Your task to perform on an android device: uninstall "Facebook" Image 0: 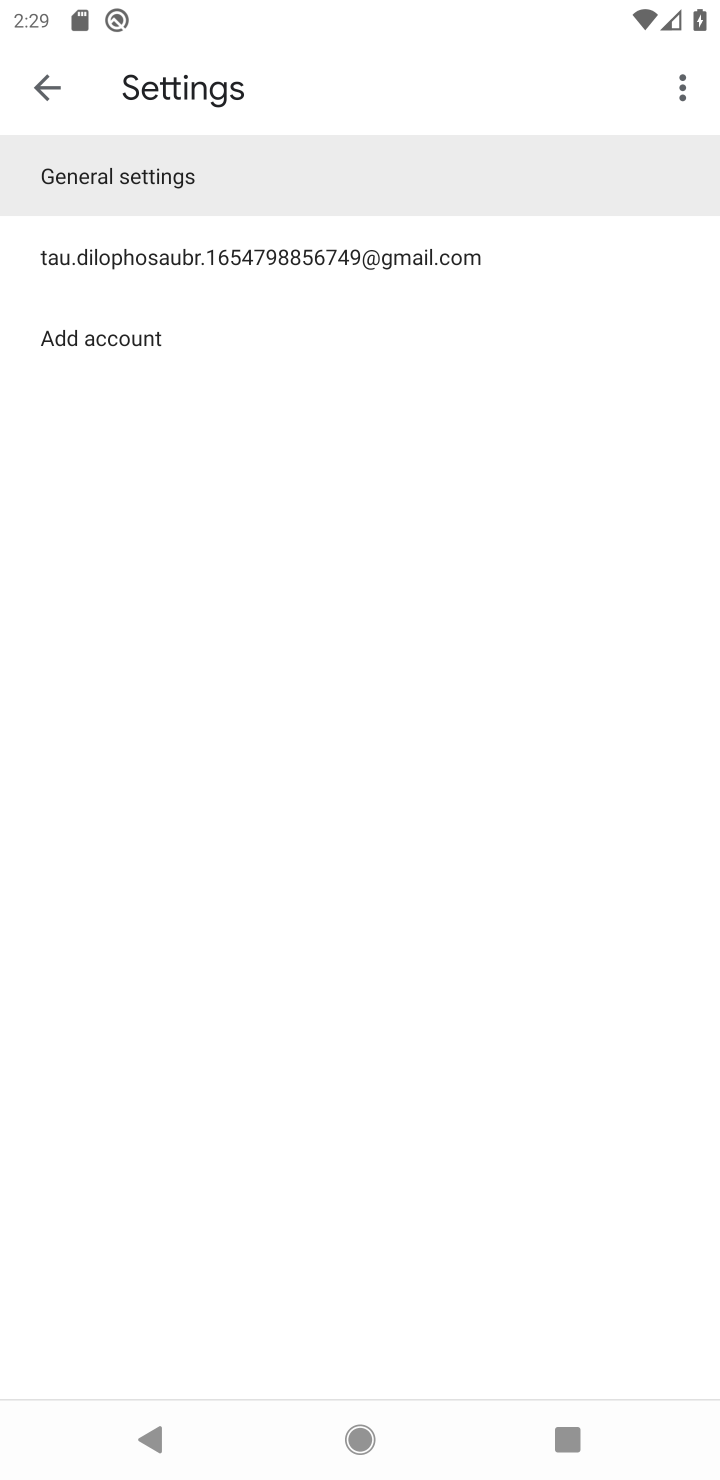
Step 0: press home button
Your task to perform on an android device: uninstall "Facebook" Image 1: 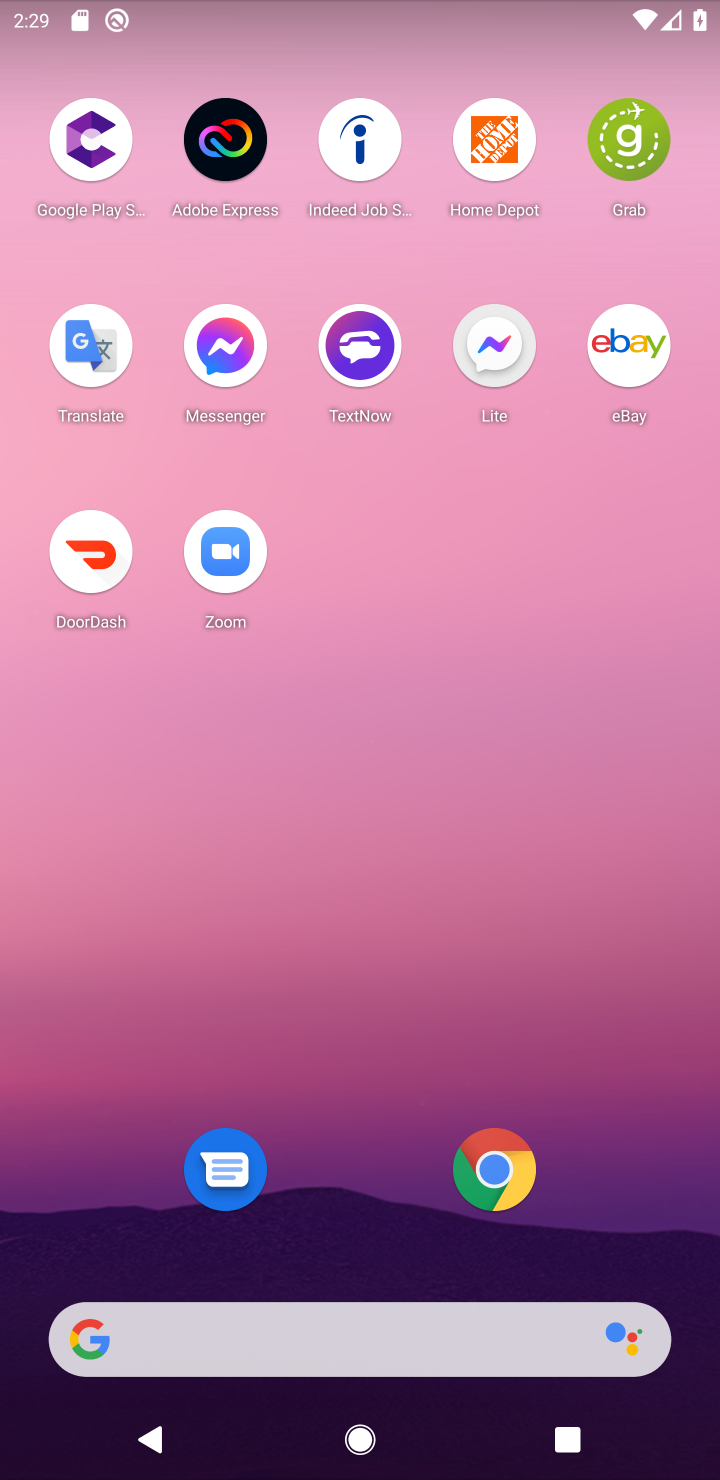
Step 1: drag from (330, 1242) to (296, 340)
Your task to perform on an android device: uninstall "Facebook" Image 2: 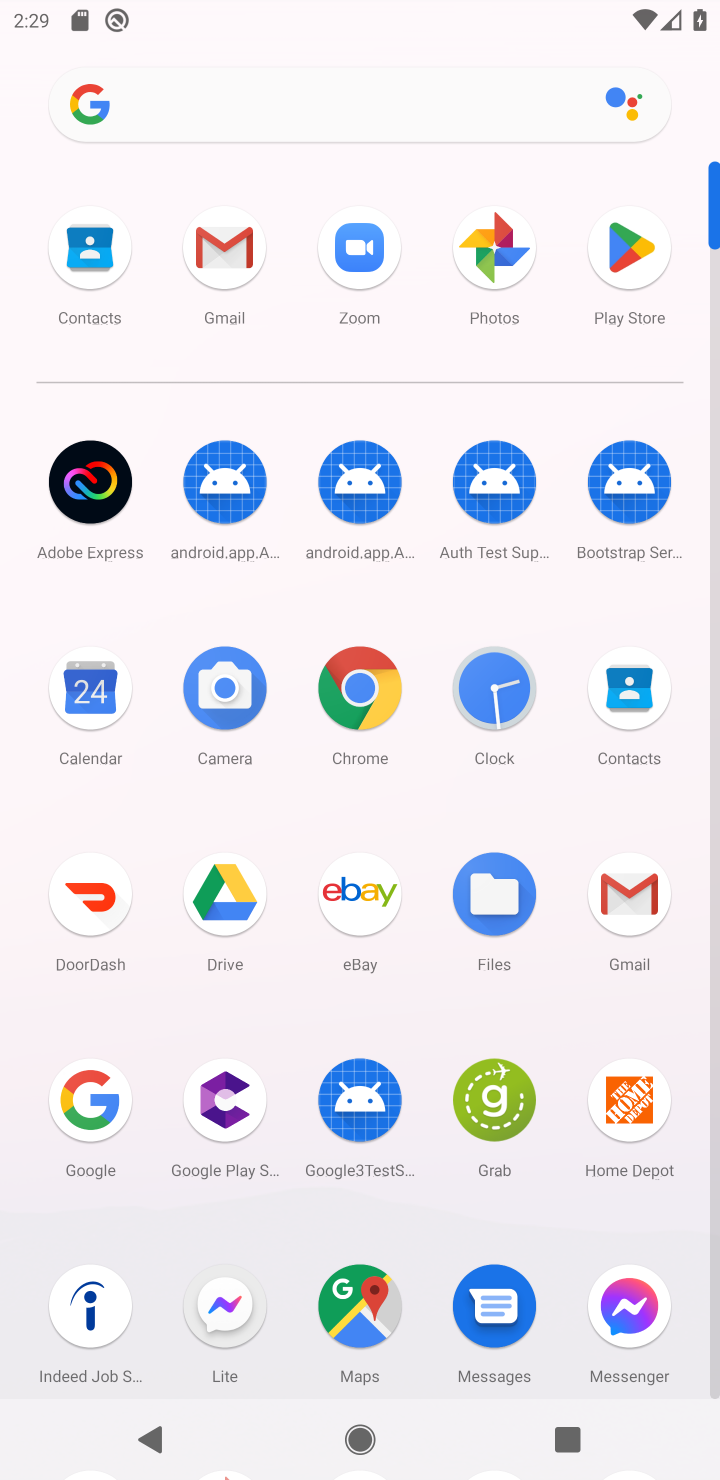
Step 2: click (619, 279)
Your task to perform on an android device: uninstall "Facebook" Image 3: 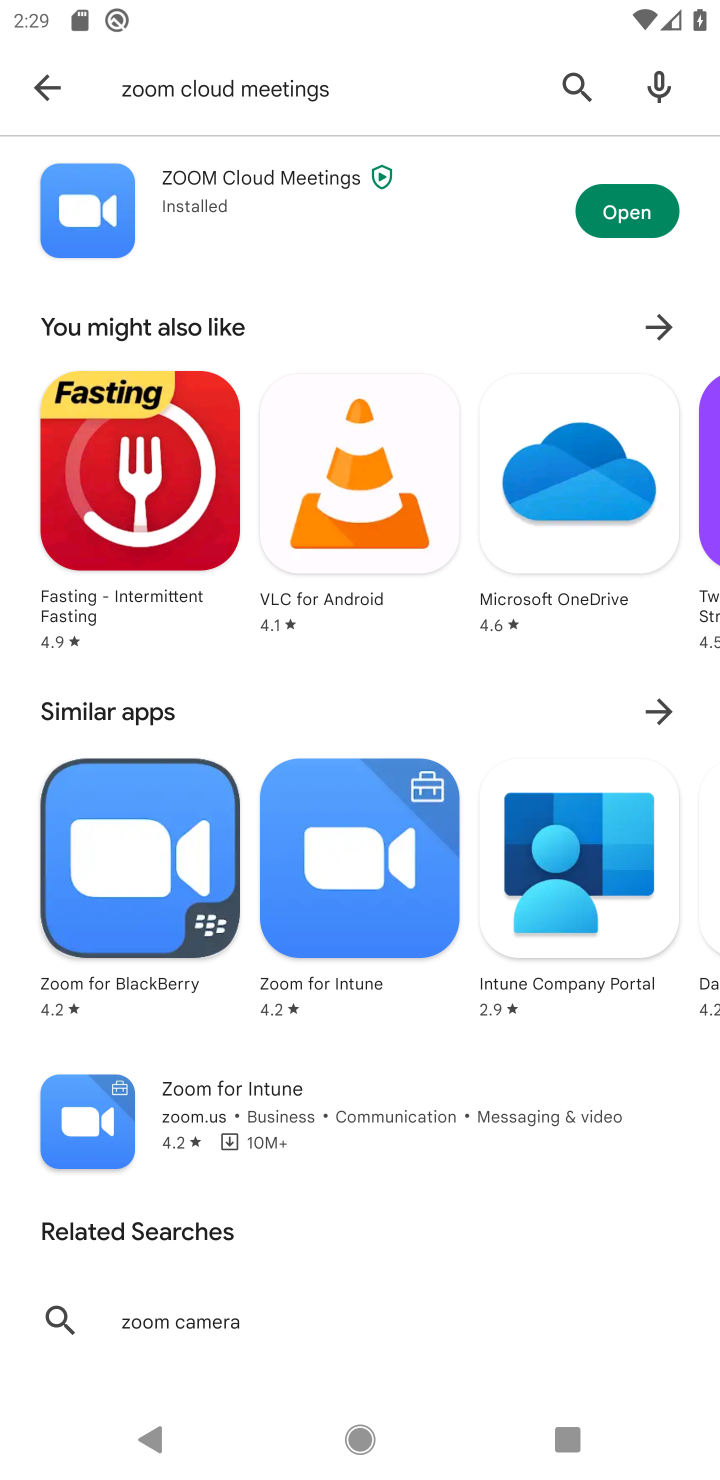
Step 3: click (607, 84)
Your task to perform on an android device: uninstall "Facebook" Image 4: 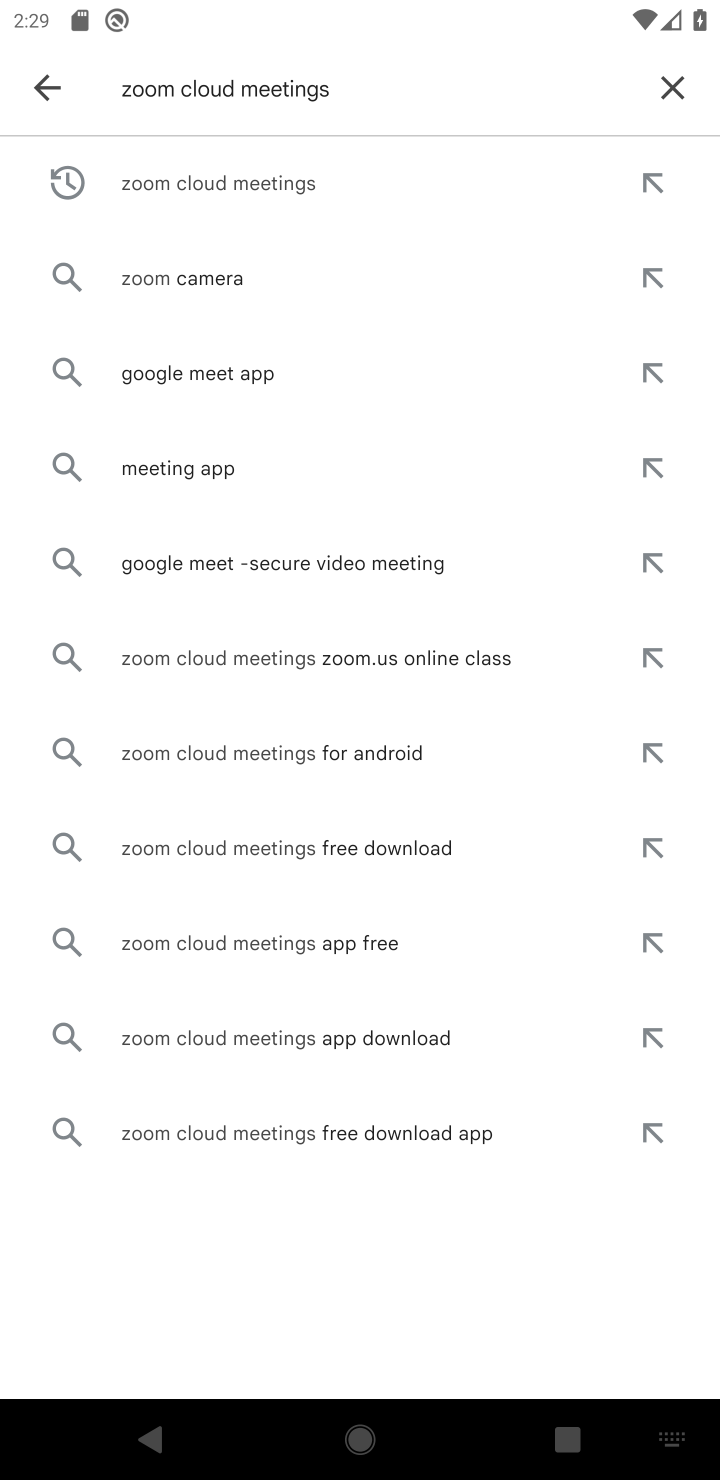
Step 4: click (674, 82)
Your task to perform on an android device: uninstall "Facebook" Image 5: 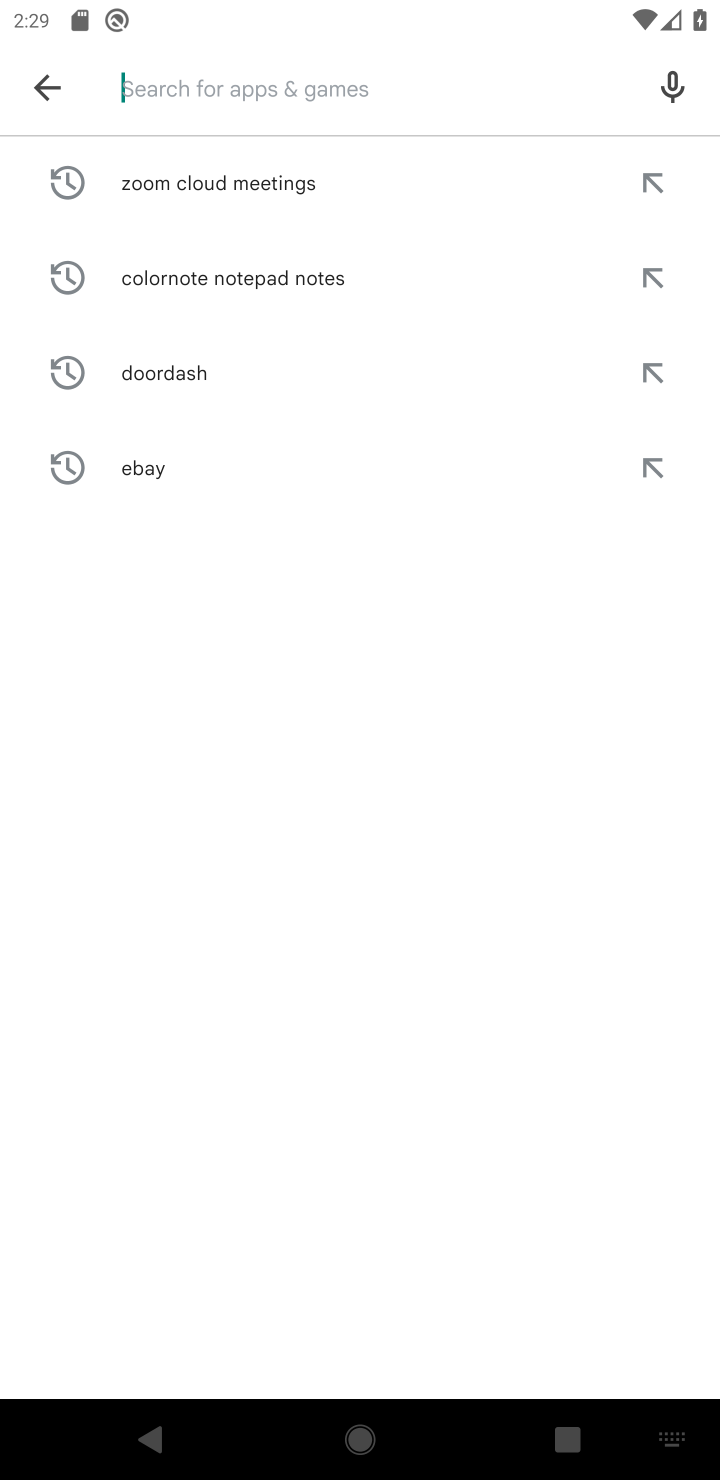
Step 5: type "Facebook"
Your task to perform on an android device: uninstall "Facebook" Image 6: 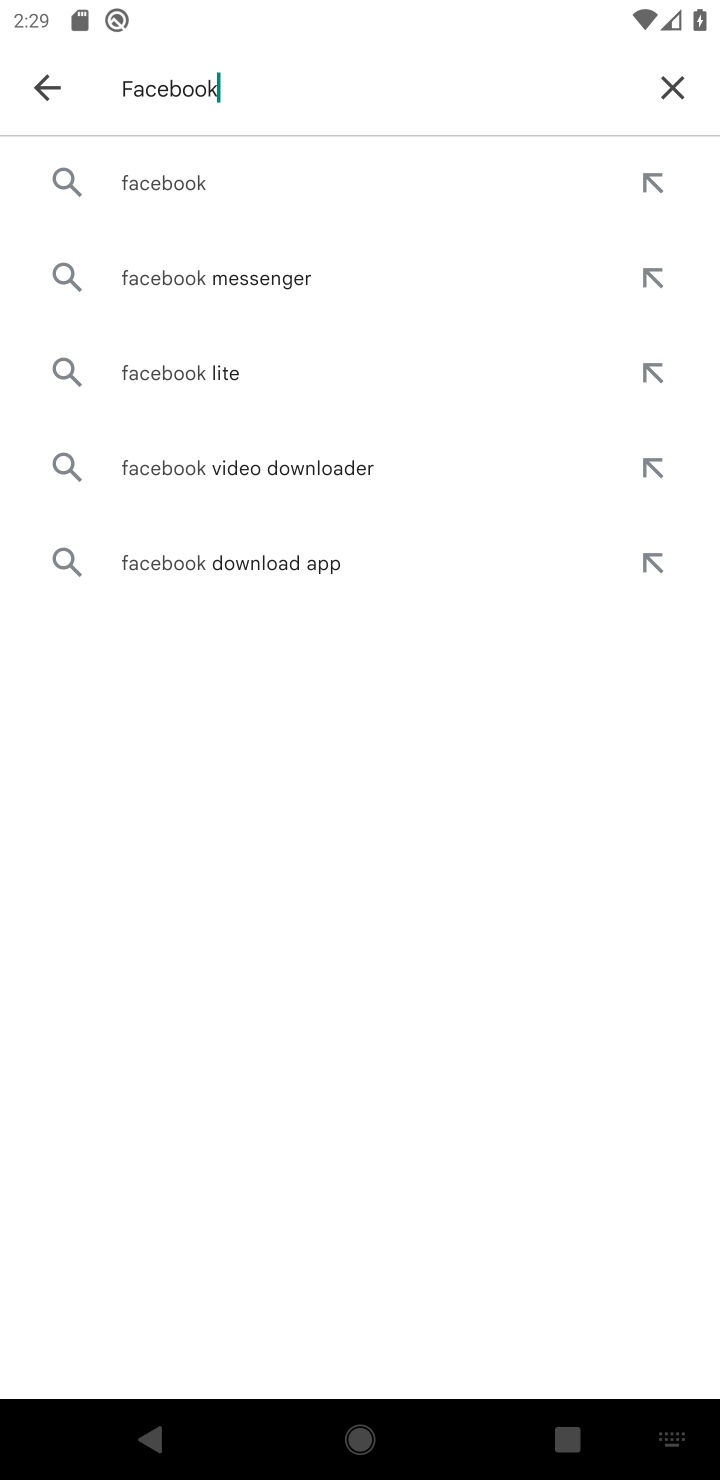
Step 6: click (178, 180)
Your task to perform on an android device: uninstall "Facebook" Image 7: 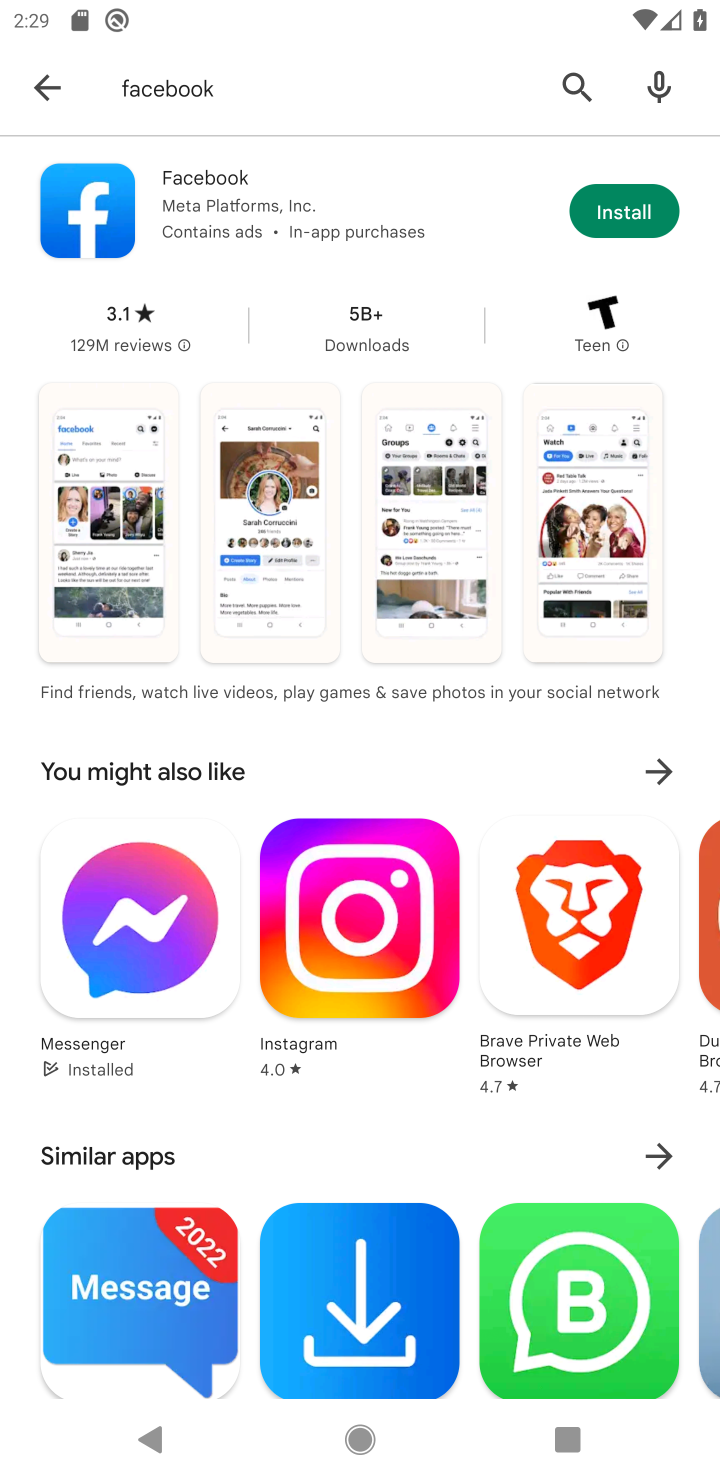
Step 7: task complete